Your task to perform on an android device: Go to display settings Image 0: 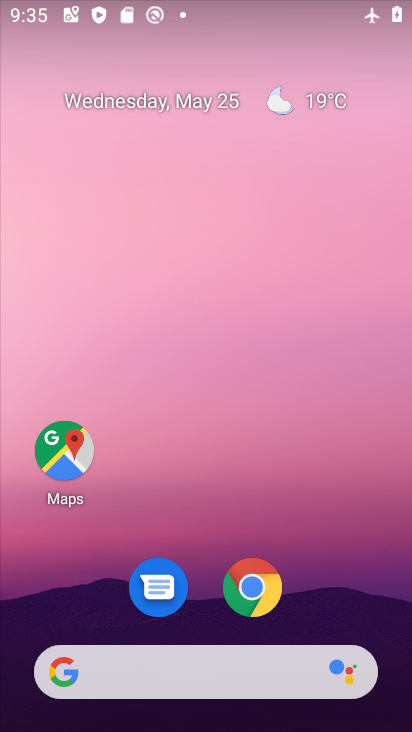
Step 0: drag from (370, 622) to (312, 53)
Your task to perform on an android device: Go to display settings Image 1: 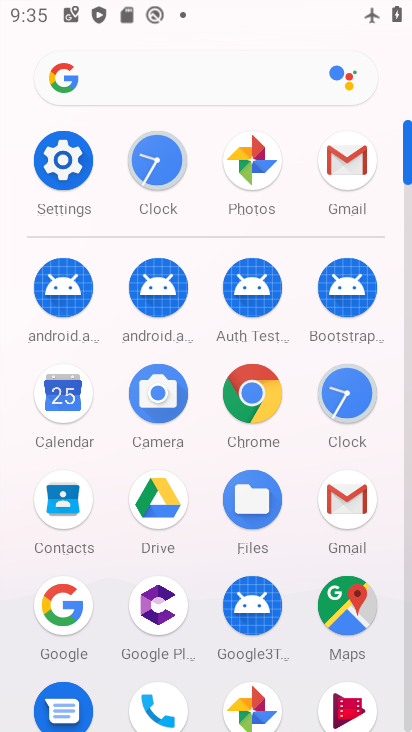
Step 1: click (409, 708)
Your task to perform on an android device: Go to display settings Image 2: 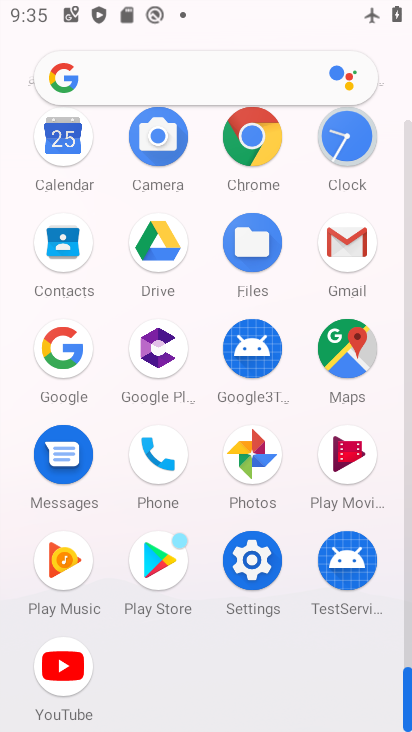
Step 2: click (250, 560)
Your task to perform on an android device: Go to display settings Image 3: 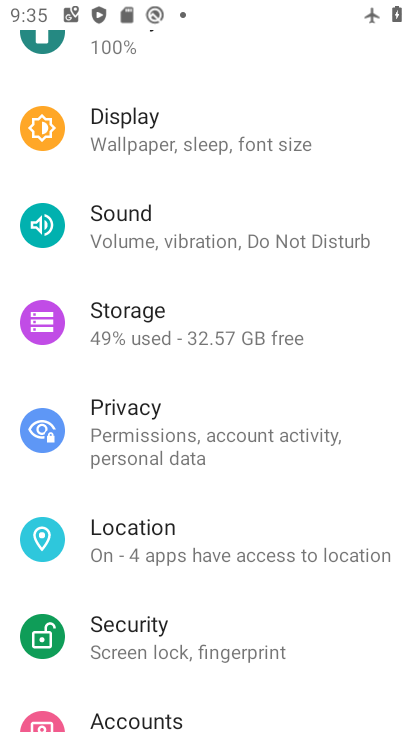
Step 3: click (124, 130)
Your task to perform on an android device: Go to display settings Image 4: 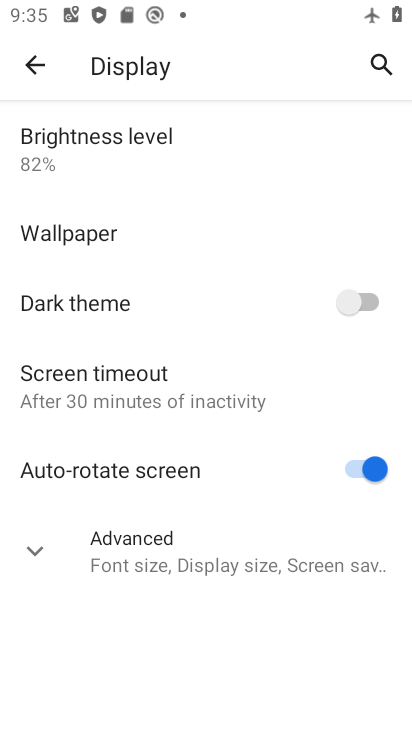
Step 4: click (34, 548)
Your task to perform on an android device: Go to display settings Image 5: 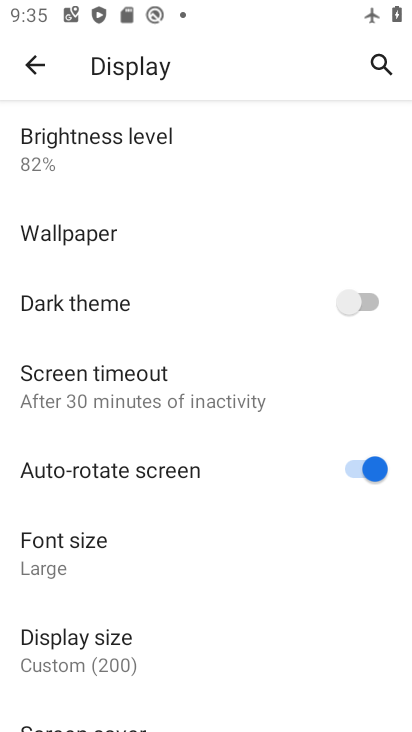
Step 5: task complete